Your task to perform on an android device: refresh tabs in the chrome app Image 0: 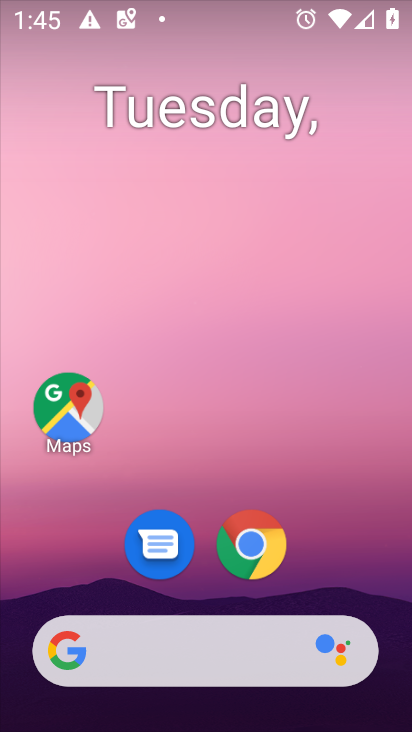
Step 0: drag from (379, 506) to (286, 1)
Your task to perform on an android device: refresh tabs in the chrome app Image 1: 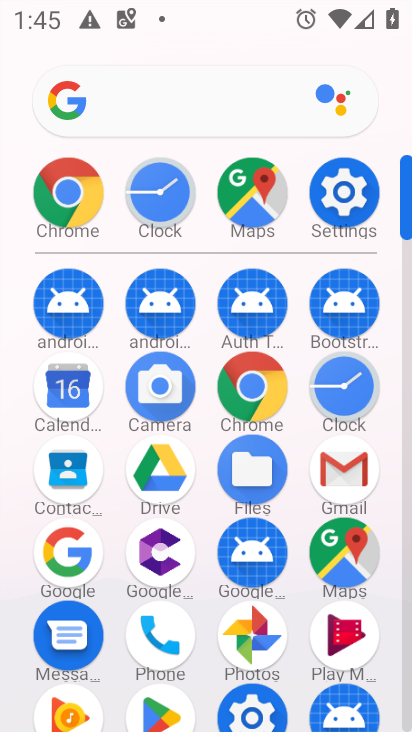
Step 1: click (245, 387)
Your task to perform on an android device: refresh tabs in the chrome app Image 2: 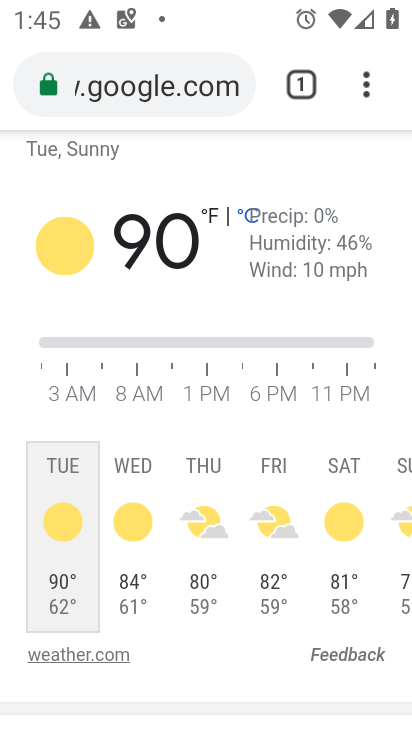
Step 2: click (377, 85)
Your task to perform on an android device: refresh tabs in the chrome app Image 3: 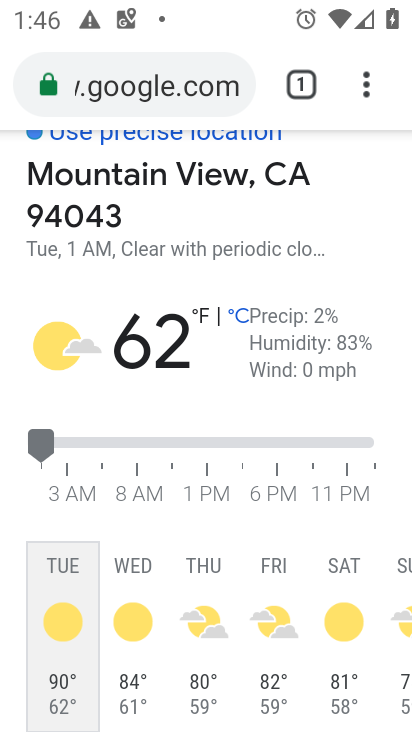
Step 3: task complete